Your task to perform on an android device: What's on my calendar tomorrow? Image 0: 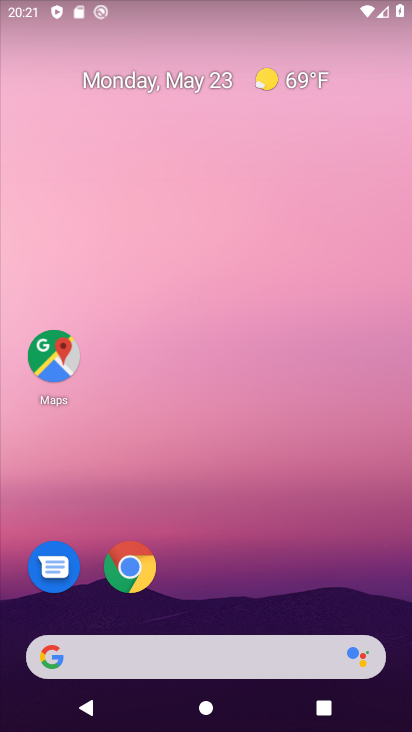
Step 0: drag from (203, 608) to (269, 40)
Your task to perform on an android device: What's on my calendar tomorrow? Image 1: 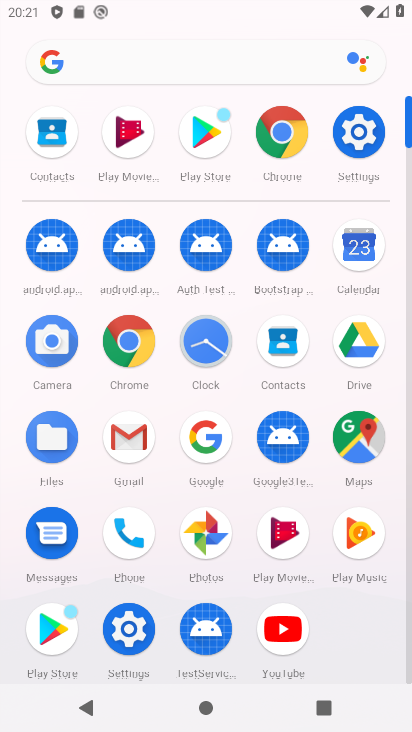
Step 1: click (349, 267)
Your task to perform on an android device: What's on my calendar tomorrow? Image 2: 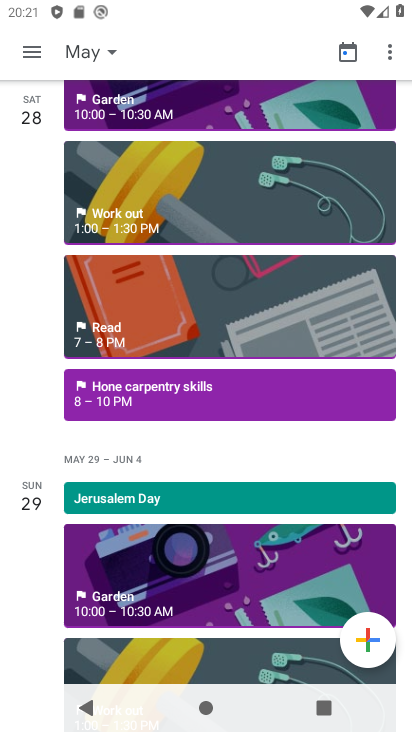
Step 2: drag from (53, 90) to (4, 570)
Your task to perform on an android device: What's on my calendar tomorrow? Image 3: 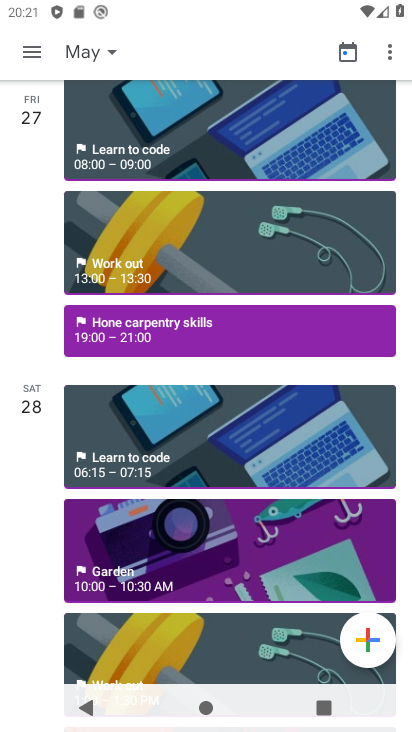
Step 3: drag from (73, 171) to (53, 676)
Your task to perform on an android device: What's on my calendar tomorrow? Image 4: 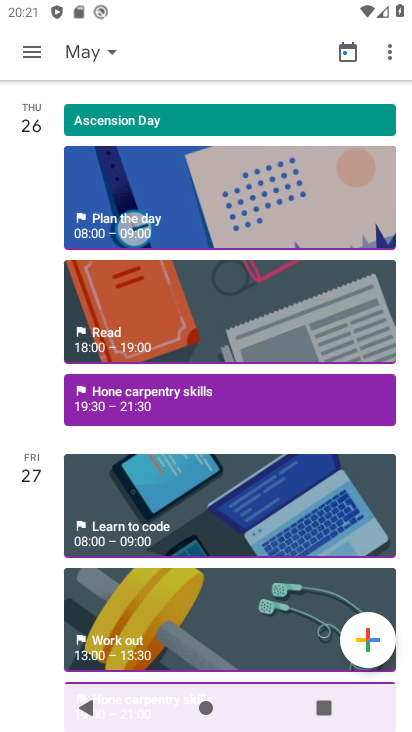
Step 4: drag from (54, 204) to (41, 678)
Your task to perform on an android device: What's on my calendar tomorrow? Image 5: 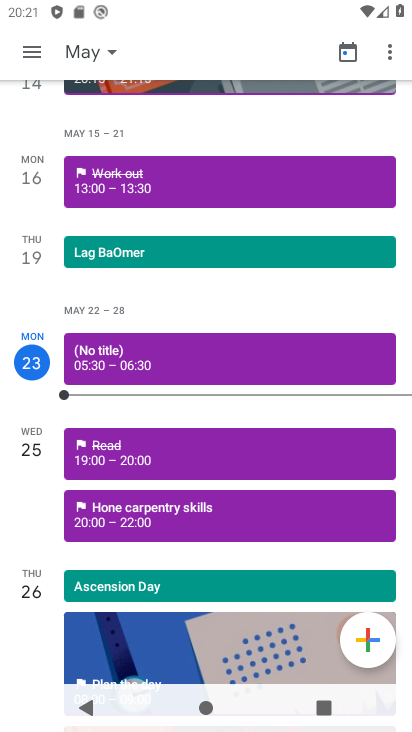
Step 5: click (35, 55)
Your task to perform on an android device: What's on my calendar tomorrow? Image 6: 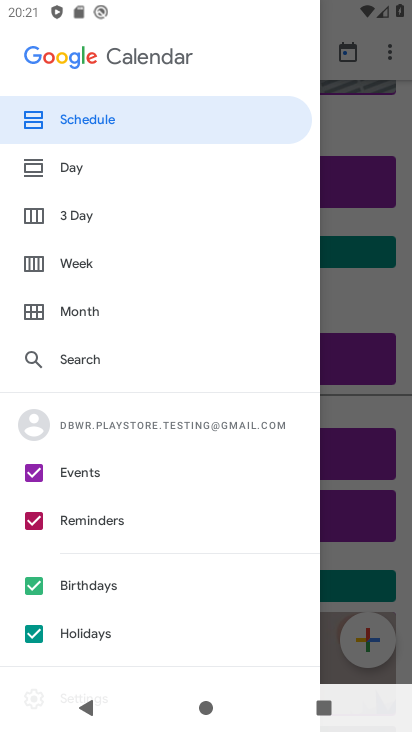
Step 6: click (93, 220)
Your task to perform on an android device: What's on my calendar tomorrow? Image 7: 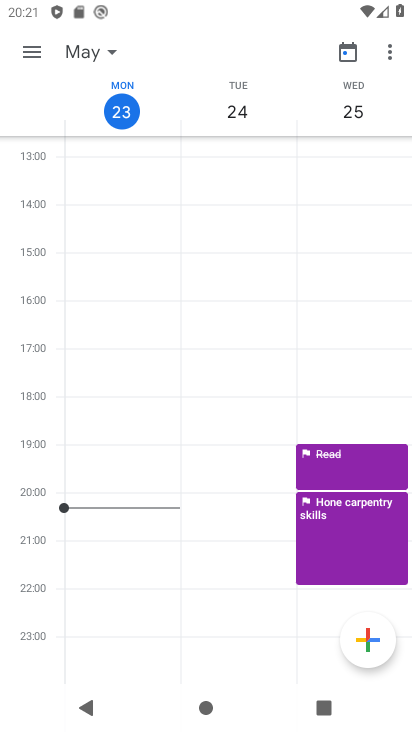
Step 7: task complete